Your task to perform on an android device: check android version Image 0: 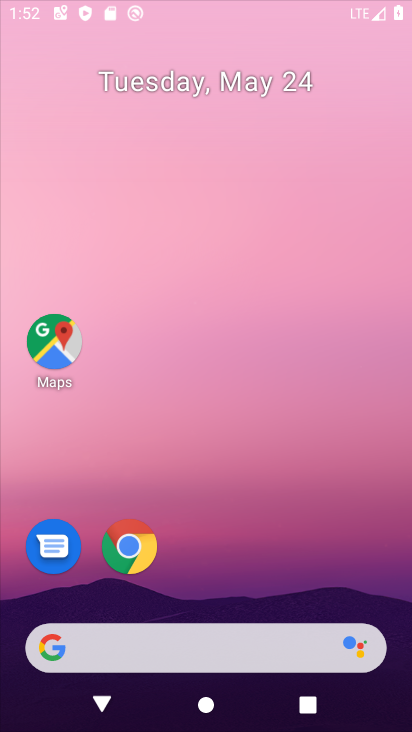
Step 0: click (307, 264)
Your task to perform on an android device: check android version Image 1: 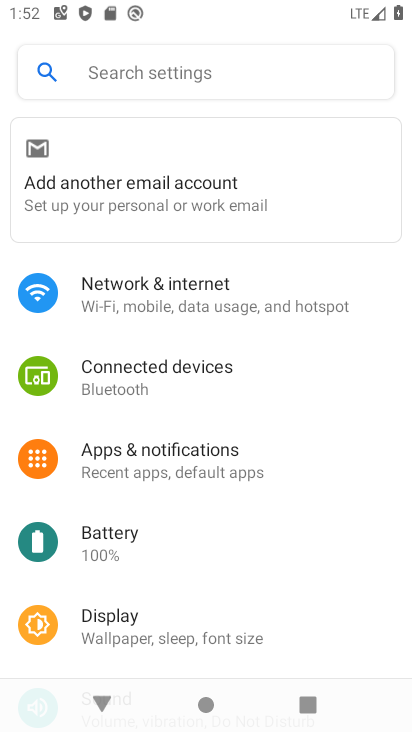
Step 1: drag from (246, 631) to (349, 102)
Your task to perform on an android device: check android version Image 2: 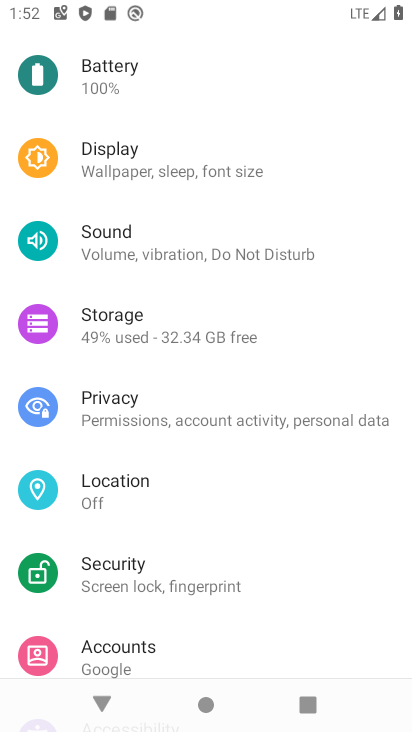
Step 2: drag from (162, 585) to (332, 137)
Your task to perform on an android device: check android version Image 3: 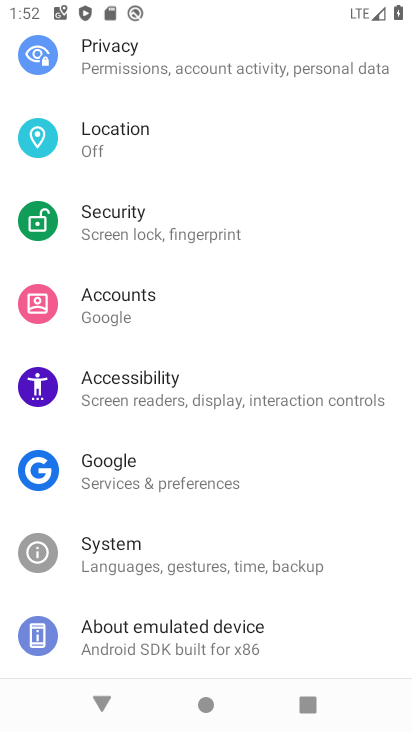
Step 3: click (164, 632)
Your task to perform on an android device: check android version Image 4: 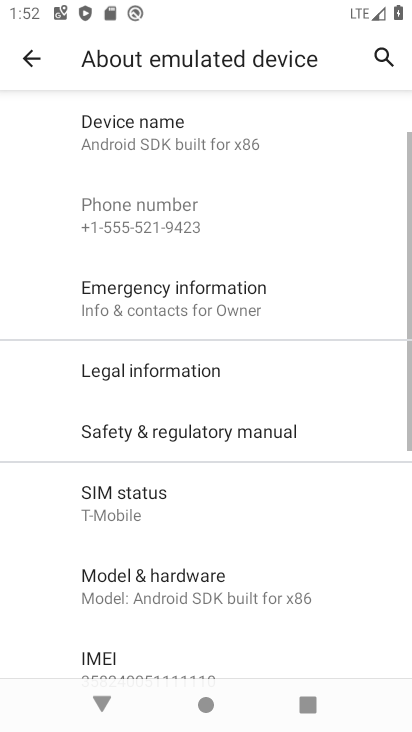
Step 4: drag from (156, 630) to (307, 103)
Your task to perform on an android device: check android version Image 5: 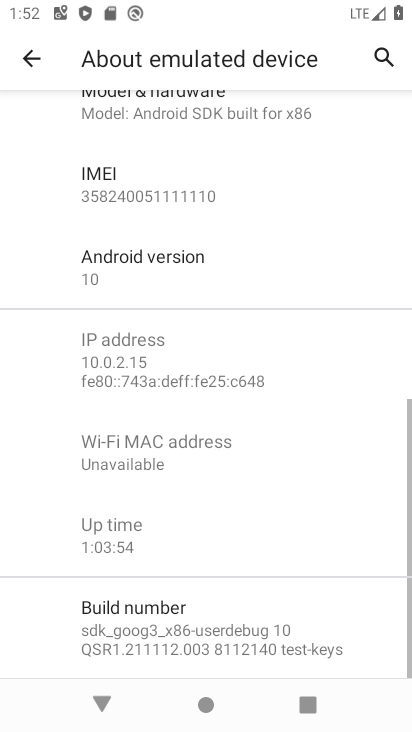
Step 5: click (204, 294)
Your task to perform on an android device: check android version Image 6: 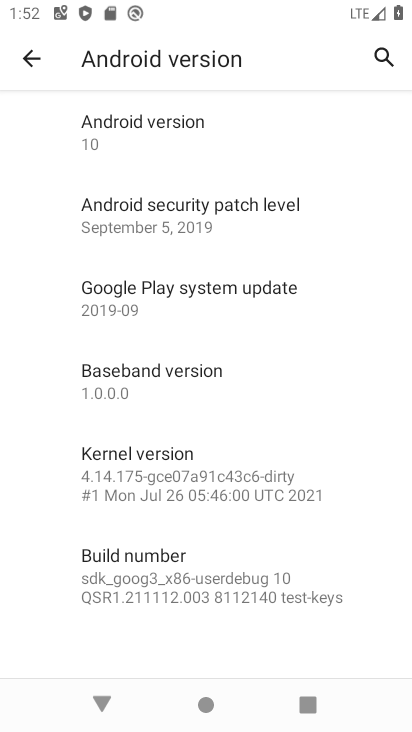
Step 6: click (111, 142)
Your task to perform on an android device: check android version Image 7: 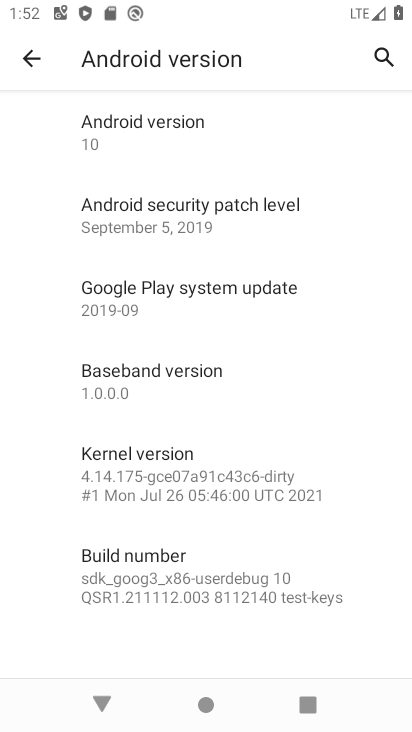
Step 7: click (182, 142)
Your task to perform on an android device: check android version Image 8: 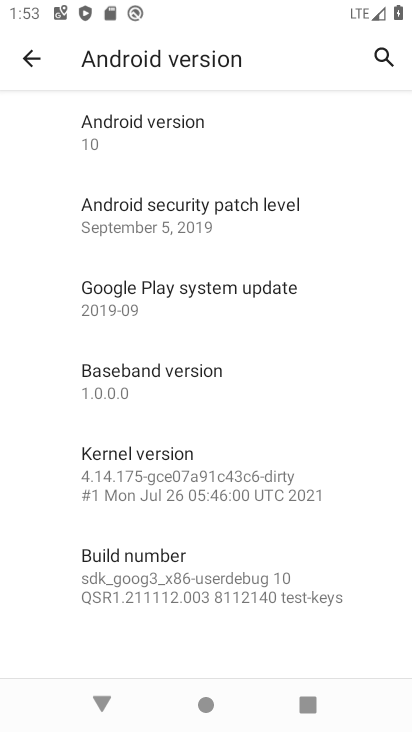
Step 8: task complete